Your task to perform on an android device: turn vacation reply on in the gmail app Image 0: 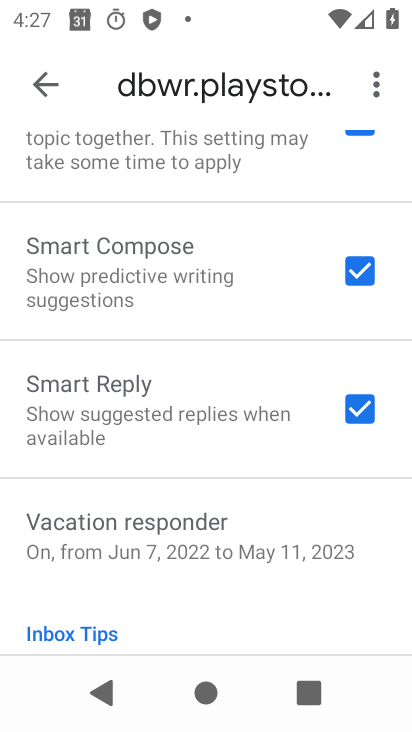
Step 0: click (334, 520)
Your task to perform on an android device: turn vacation reply on in the gmail app Image 1: 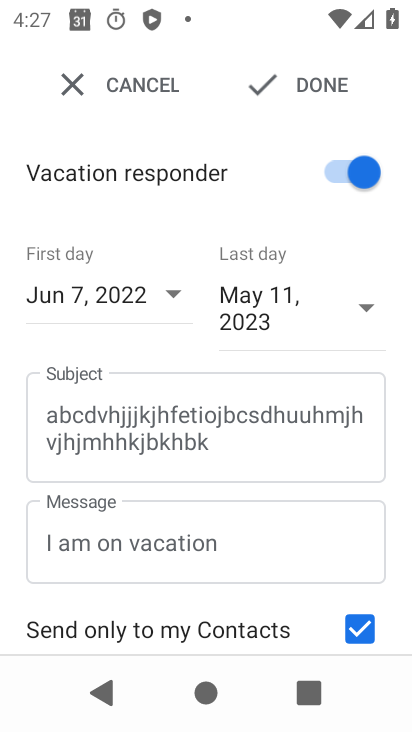
Step 1: click (332, 97)
Your task to perform on an android device: turn vacation reply on in the gmail app Image 2: 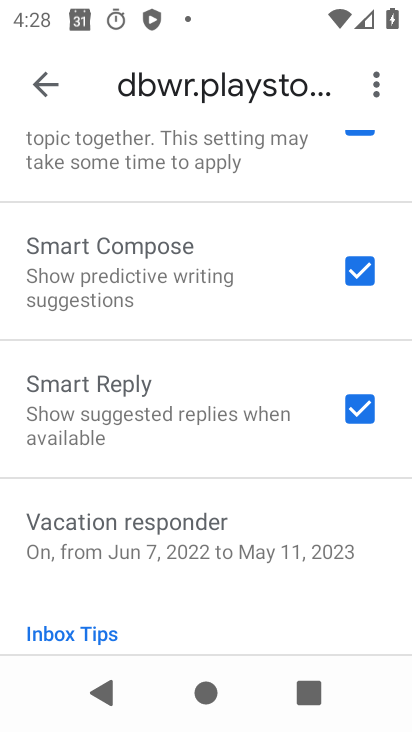
Step 2: task complete